Your task to perform on an android device: Go to CNN.com Image 0: 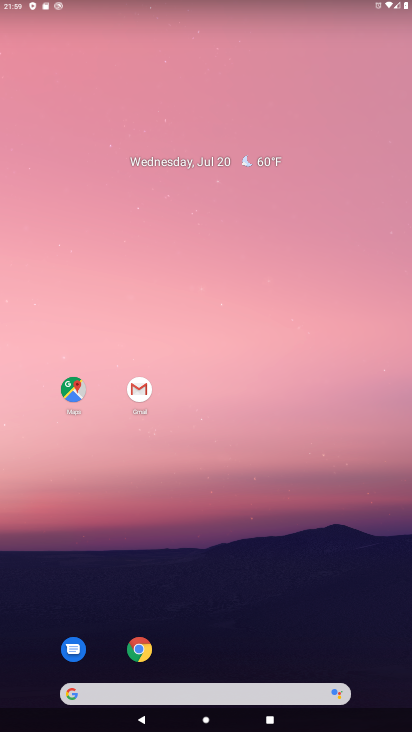
Step 0: click (139, 645)
Your task to perform on an android device: Go to CNN.com Image 1: 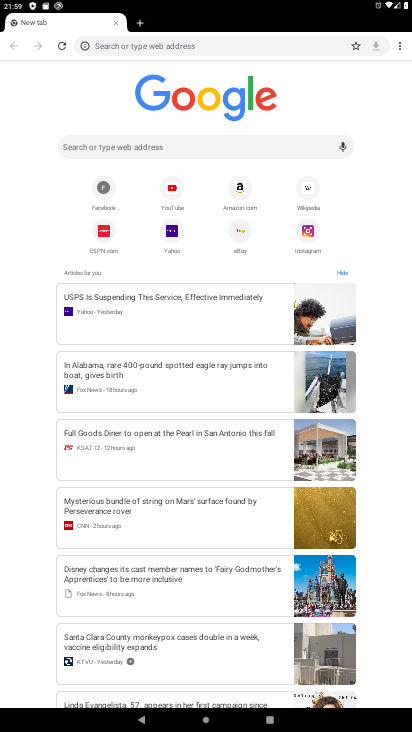
Step 1: click (122, 145)
Your task to perform on an android device: Go to CNN.com Image 2: 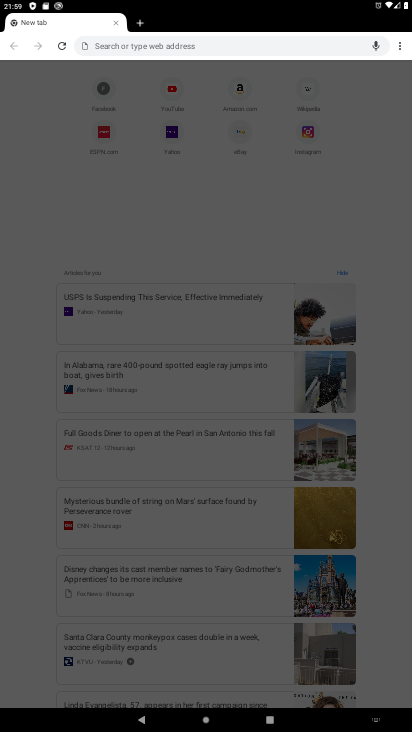
Step 2: type "CNN.com"
Your task to perform on an android device: Go to CNN.com Image 3: 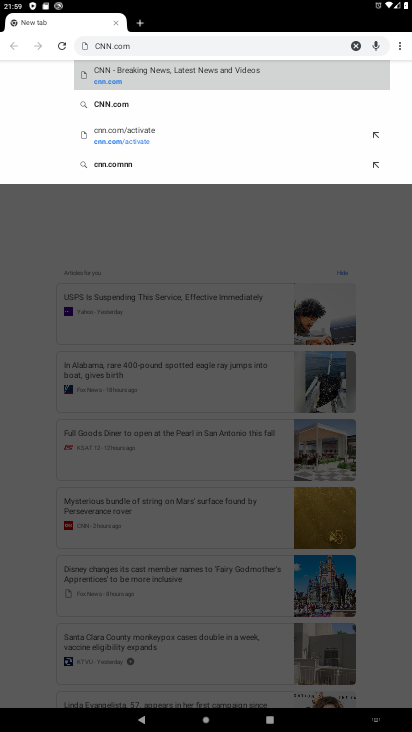
Step 3: click (115, 106)
Your task to perform on an android device: Go to CNN.com Image 4: 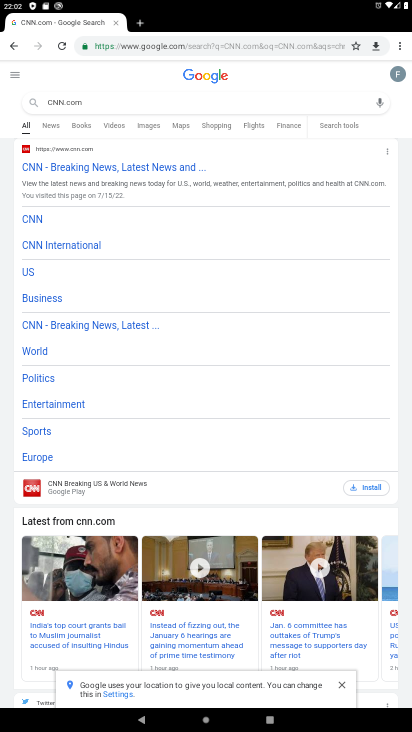
Step 4: task complete